Your task to perform on an android device: open a bookmark in the chrome app Image 0: 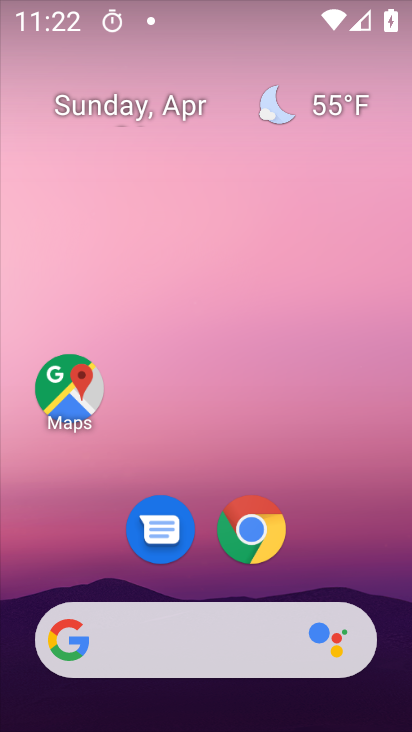
Step 0: drag from (210, 598) to (135, 13)
Your task to perform on an android device: open a bookmark in the chrome app Image 1: 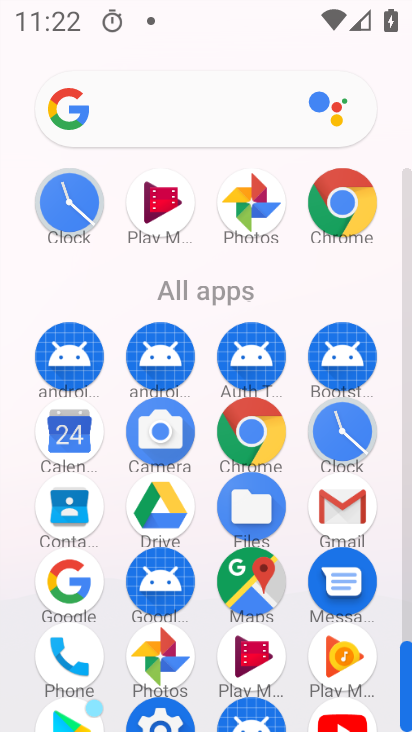
Step 1: click (340, 188)
Your task to perform on an android device: open a bookmark in the chrome app Image 2: 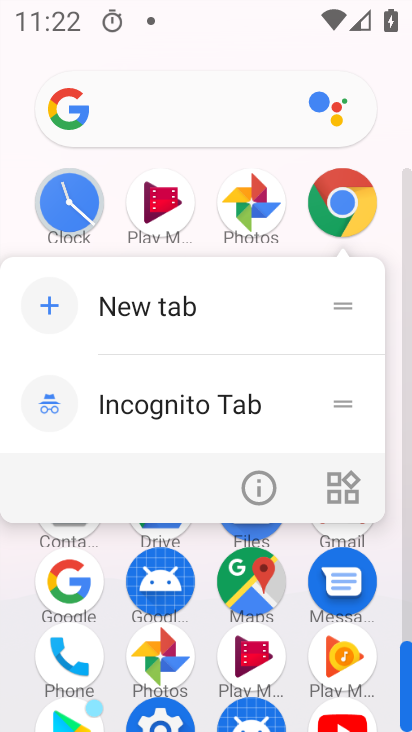
Step 2: click (331, 202)
Your task to perform on an android device: open a bookmark in the chrome app Image 3: 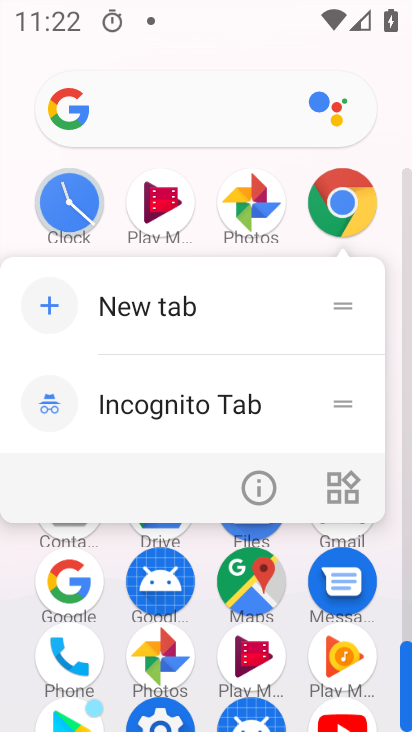
Step 3: click (346, 216)
Your task to perform on an android device: open a bookmark in the chrome app Image 4: 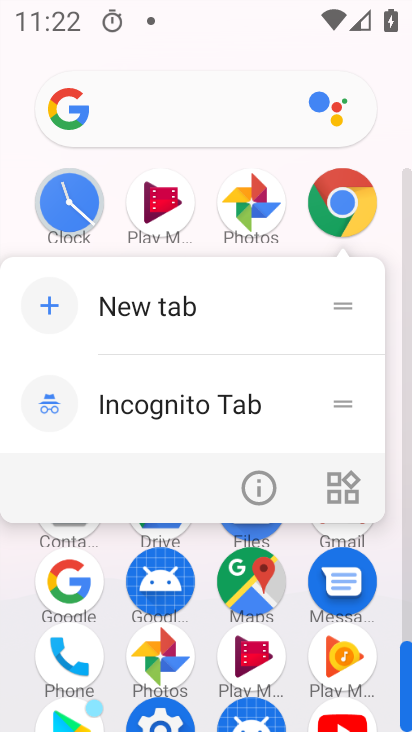
Step 4: click (346, 216)
Your task to perform on an android device: open a bookmark in the chrome app Image 5: 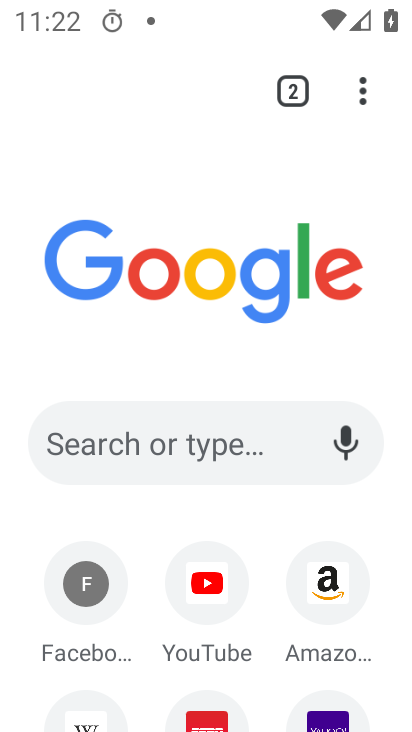
Step 5: click (354, 84)
Your task to perform on an android device: open a bookmark in the chrome app Image 6: 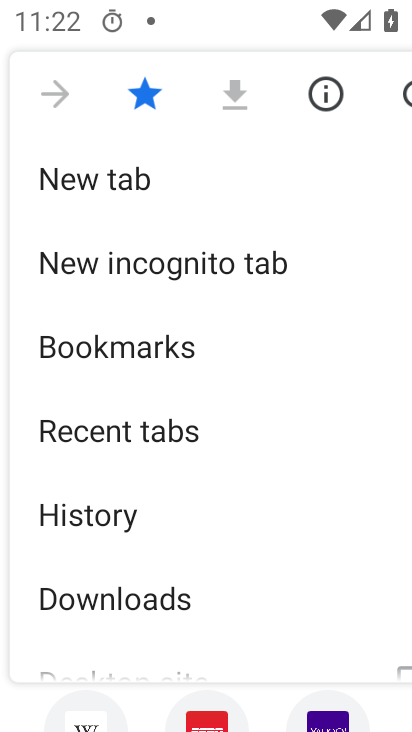
Step 6: click (103, 334)
Your task to perform on an android device: open a bookmark in the chrome app Image 7: 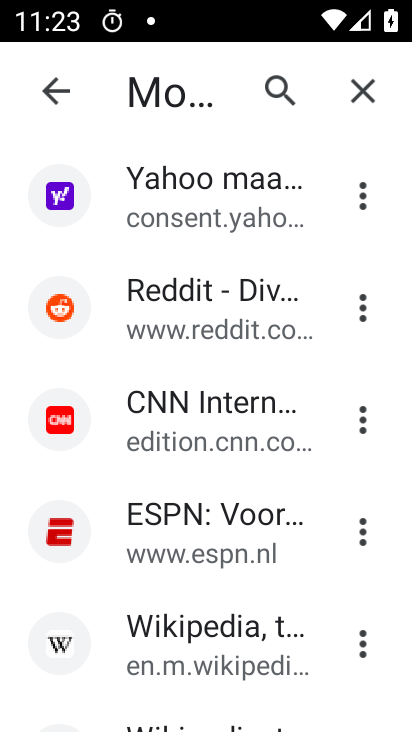
Step 7: task complete